Your task to perform on an android device: check the backup settings in the google photos Image 0: 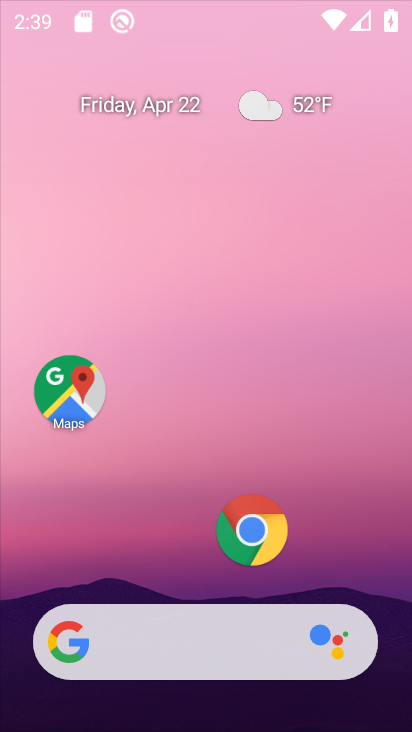
Step 0: click (372, 443)
Your task to perform on an android device: check the backup settings in the google photos Image 1: 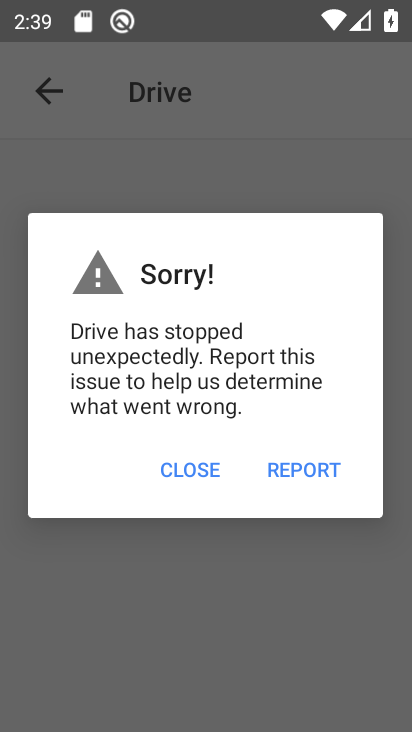
Step 1: press home button
Your task to perform on an android device: check the backup settings in the google photos Image 2: 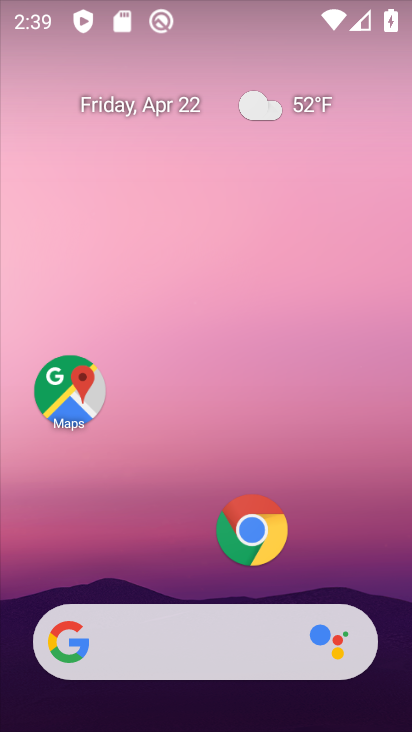
Step 2: drag from (222, 620) to (169, 43)
Your task to perform on an android device: check the backup settings in the google photos Image 3: 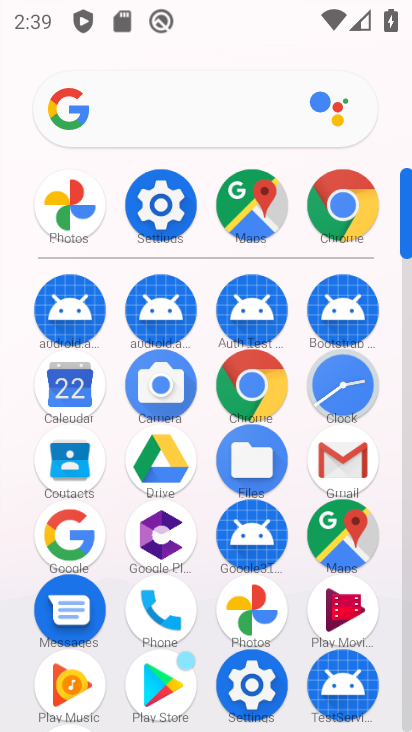
Step 3: click (257, 599)
Your task to perform on an android device: check the backup settings in the google photos Image 4: 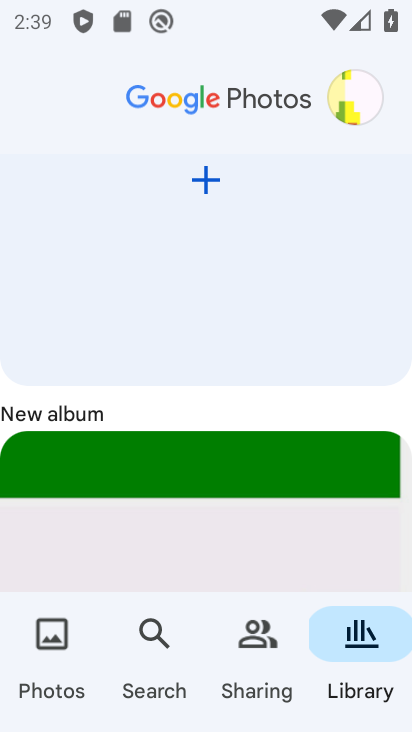
Step 4: drag from (114, 205) to (192, 523)
Your task to perform on an android device: check the backup settings in the google photos Image 5: 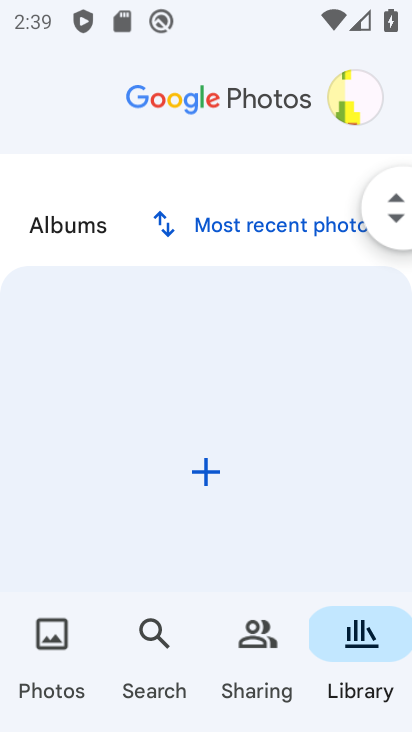
Step 5: click (60, 635)
Your task to perform on an android device: check the backup settings in the google photos Image 6: 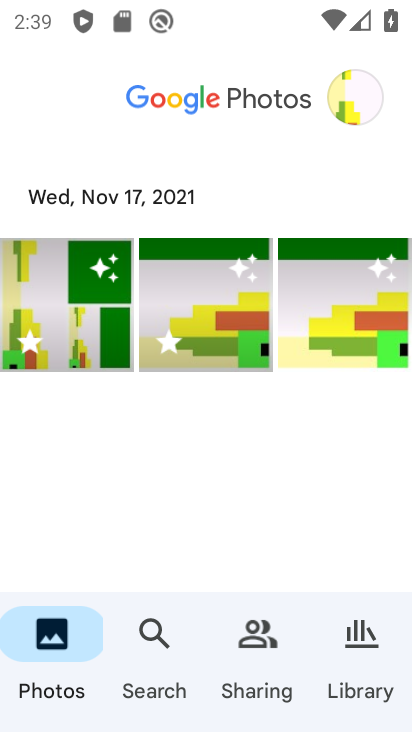
Step 6: click (356, 91)
Your task to perform on an android device: check the backup settings in the google photos Image 7: 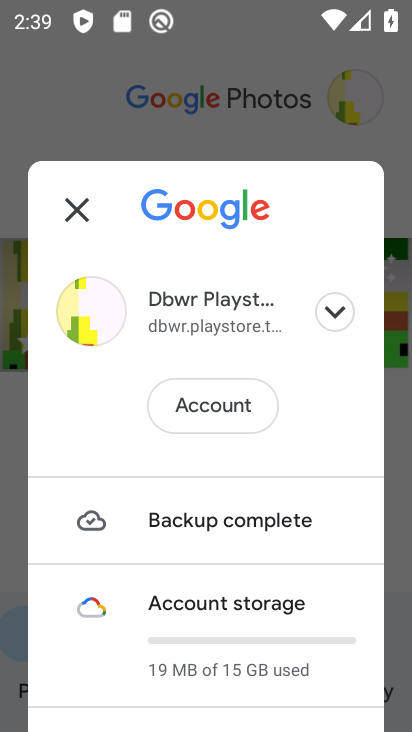
Step 7: drag from (147, 563) to (145, 194)
Your task to perform on an android device: check the backup settings in the google photos Image 8: 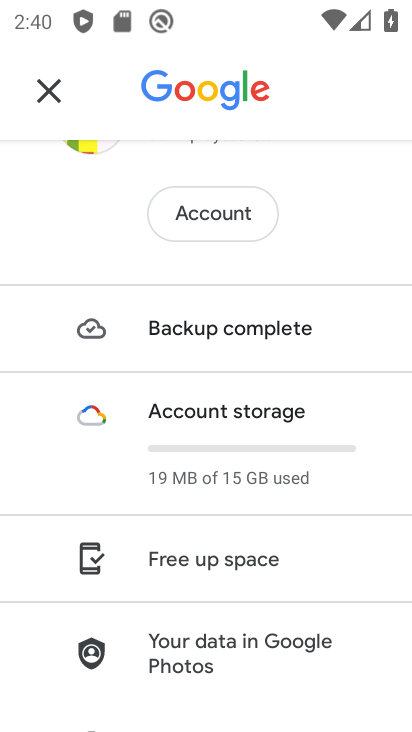
Step 8: drag from (252, 631) to (206, 155)
Your task to perform on an android device: check the backup settings in the google photos Image 9: 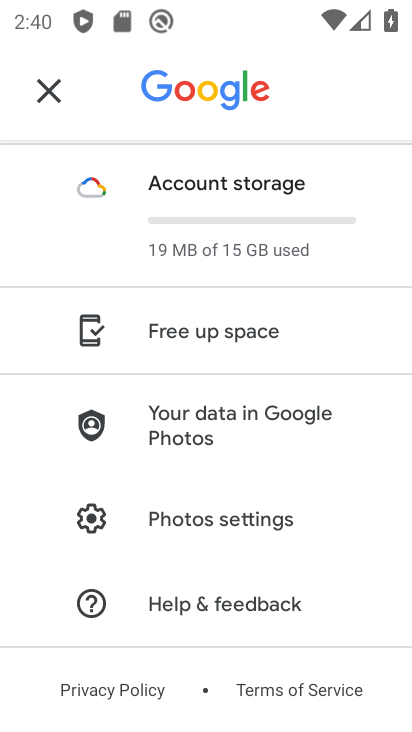
Step 9: click (184, 515)
Your task to perform on an android device: check the backup settings in the google photos Image 10: 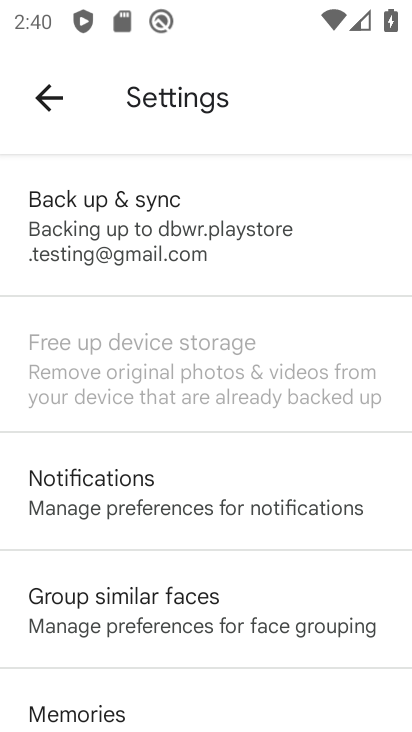
Step 10: click (169, 239)
Your task to perform on an android device: check the backup settings in the google photos Image 11: 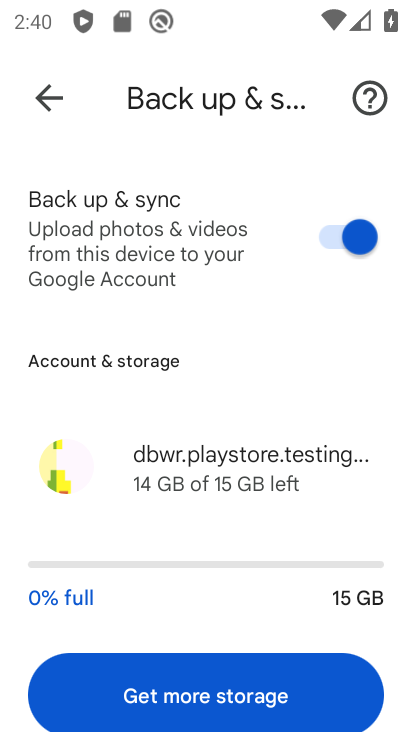
Step 11: task complete